Your task to perform on an android device: turn on wifi Image 0: 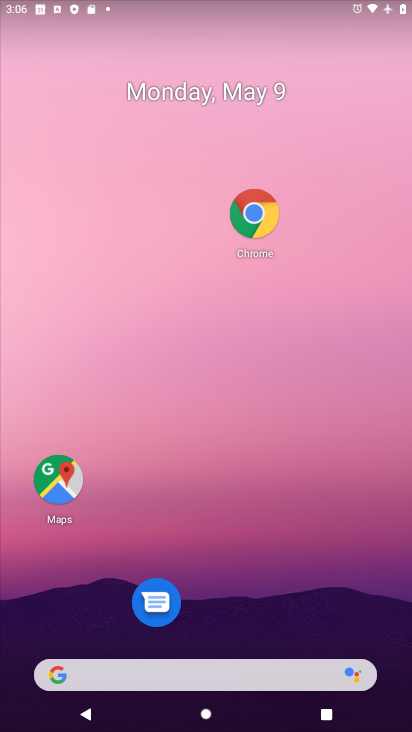
Step 0: drag from (358, 575) to (284, 222)
Your task to perform on an android device: turn on wifi Image 1: 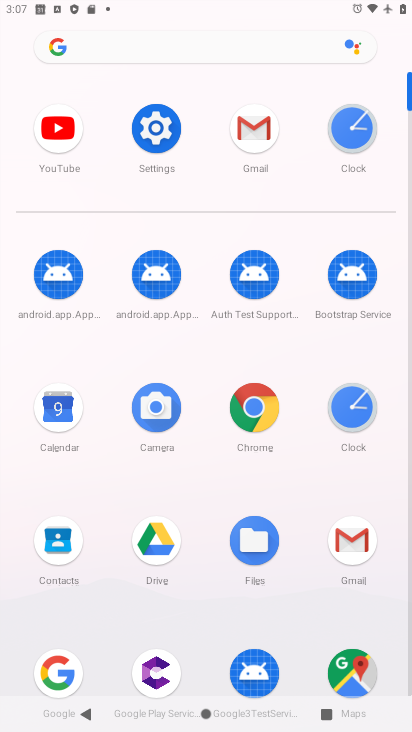
Step 1: click (156, 160)
Your task to perform on an android device: turn on wifi Image 2: 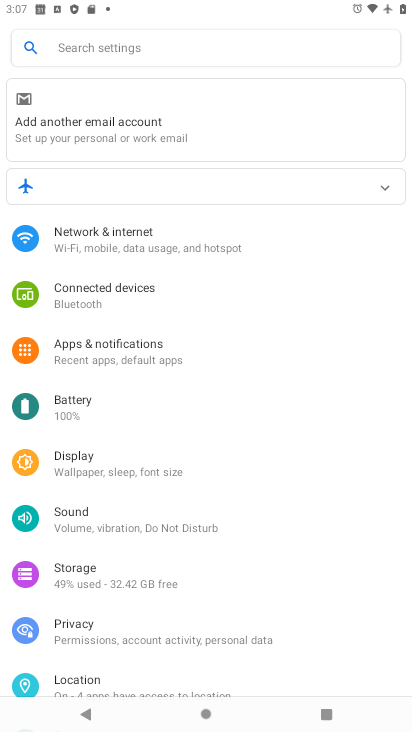
Step 2: click (179, 249)
Your task to perform on an android device: turn on wifi Image 3: 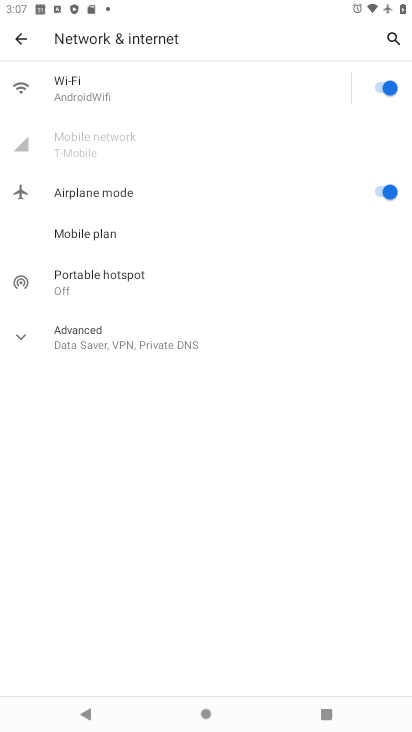
Step 3: task complete